Your task to perform on an android device: open app "Facebook Lite" (install if not already installed) Image 0: 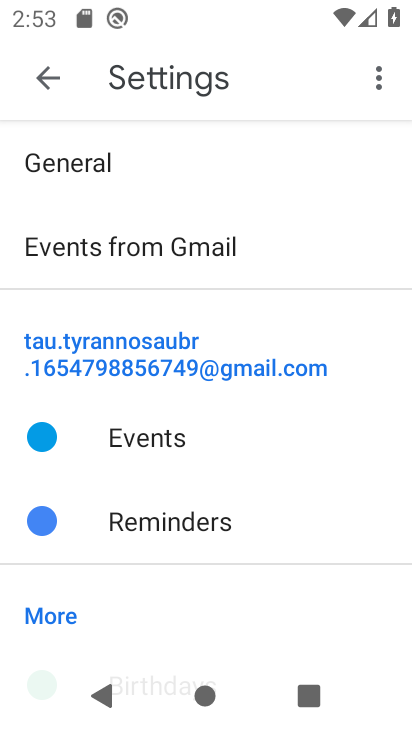
Step 0: press home button
Your task to perform on an android device: open app "Facebook Lite" (install if not already installed) Image 1: 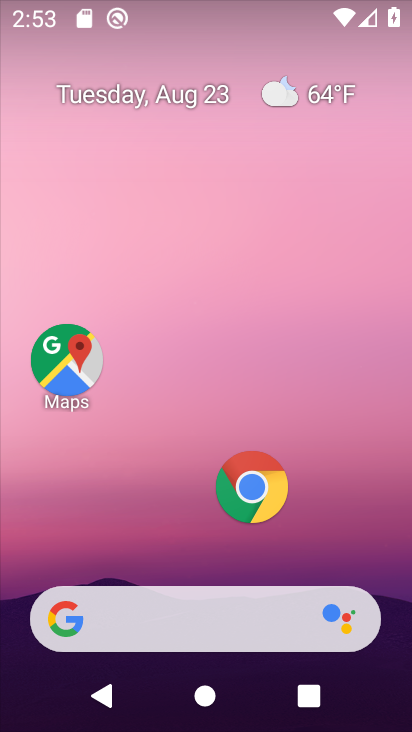
Step 1: drag from (208, 368) to (238, 138)
Your task to perform on an android device: open app "Facebook Lite" (install if not already installed) Image 2: 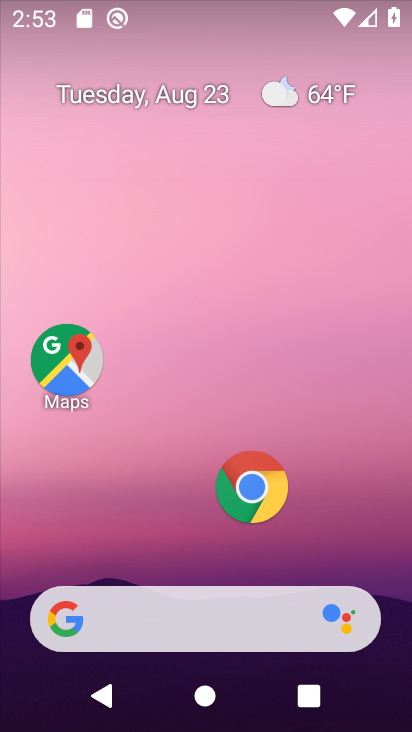
Step 2: drag from (157, 531) to (164, 145)
Your task to perform on an android device: open app "Facebook Lite" (install if not already installed) Image 3: 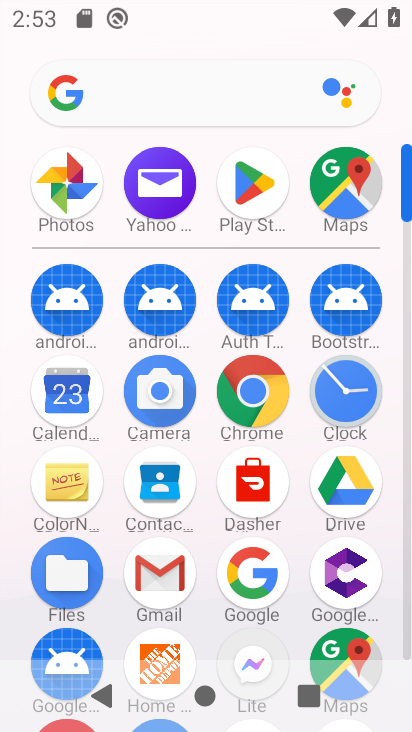
Step 3: click (254, 170)
Your task to perform on an android device: open app "Facebook Lite" (install if not already installed) Image 4: 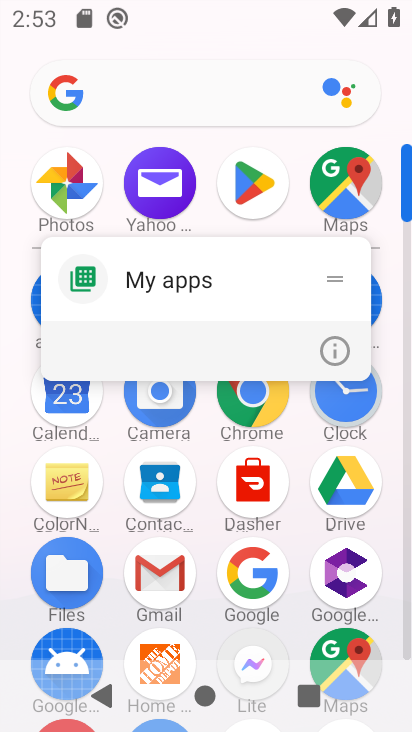
Step 4: click (260, 180)
Your task to perform on an android device: open app "Facebook Lite" (install if not already installed) Image 5: 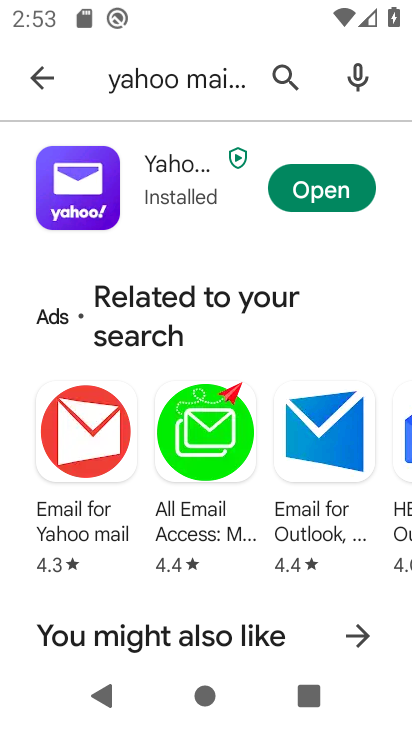
Step 5: click (52, 77)
Your task to perform on an android device: open app "Facebook Lite" (install if not already installed) Image 6: 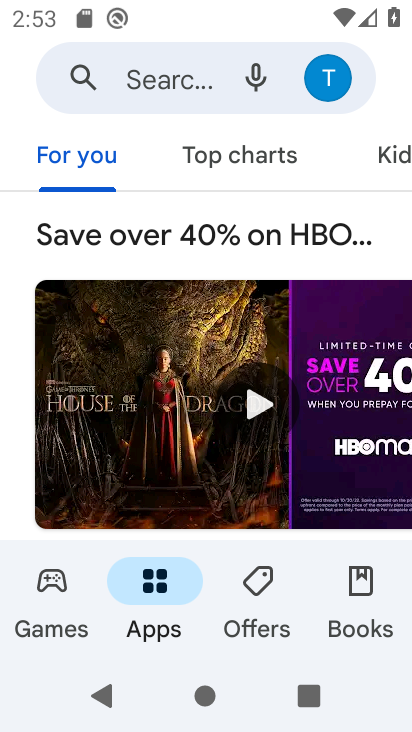
Step 6: click (147, 84)
Your task to perform on an android device: open app "Facebook Lite" (install if not already installed) Image 7: 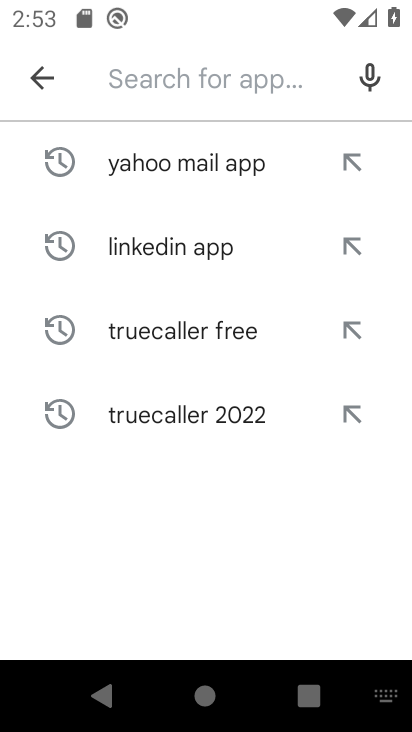
Step 7: type "facebook"
Your task to perform on an android device: open app "Facebook Lite" (install if not already installed) Image 8: 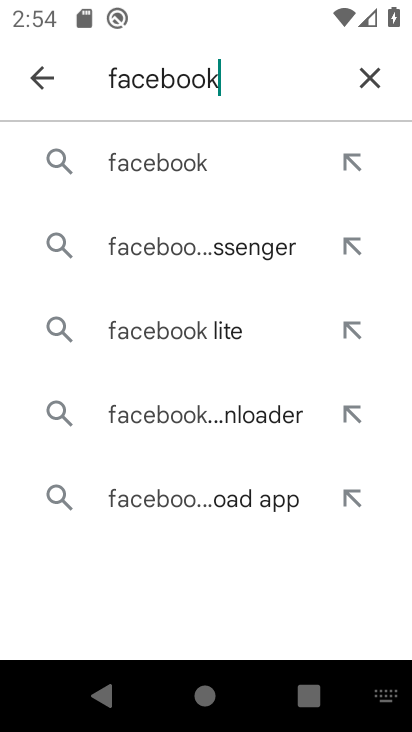
Step 8: click (172, 317)
Your task to perform on an android device: open app "Facebook Lite" (install if not already installed) Image 9: 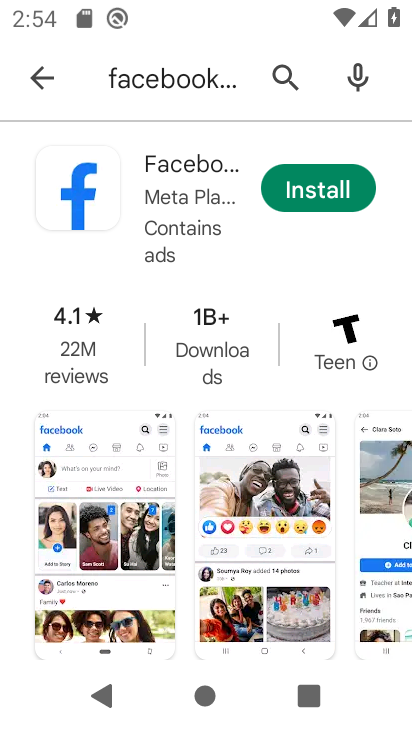
Step 9: click (303, 181)
Your task to perform on an android device: open app "Facebook Lite" (install if not already installed) Image 10: 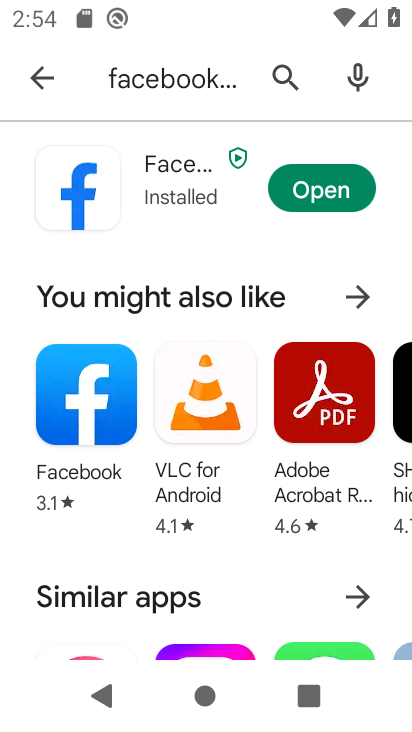
Step 10: task complete